Your task to perform on an android device: Open the web browser Image 0: 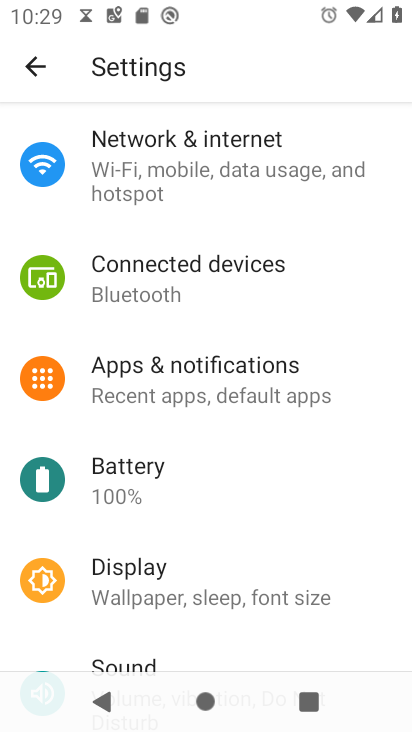
Step 0: press home button
Your task to perform on an android device: Open the web browser Image 1: 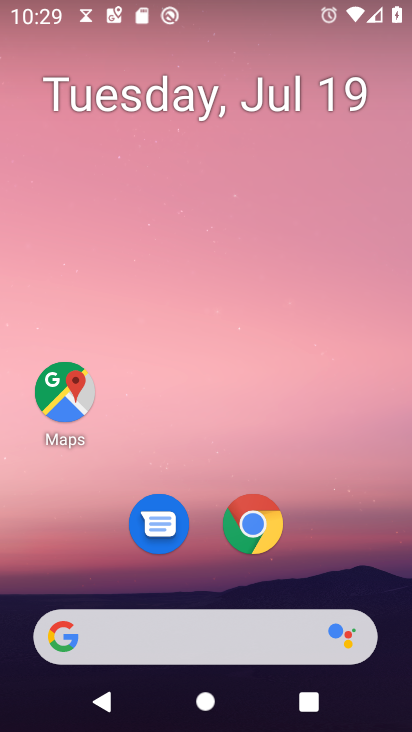
Step 1: click (257, 527)
Your task to perform on an android device: Open the web browser Image 2: 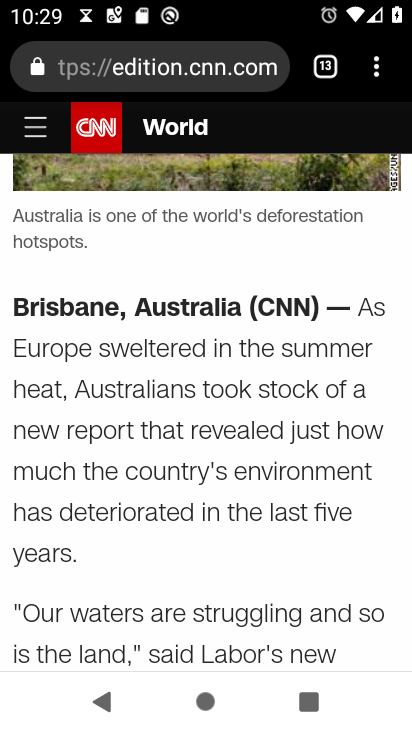
Step 2: task complete